Your task to perform on an android device: Go to wifi settings Image 0: 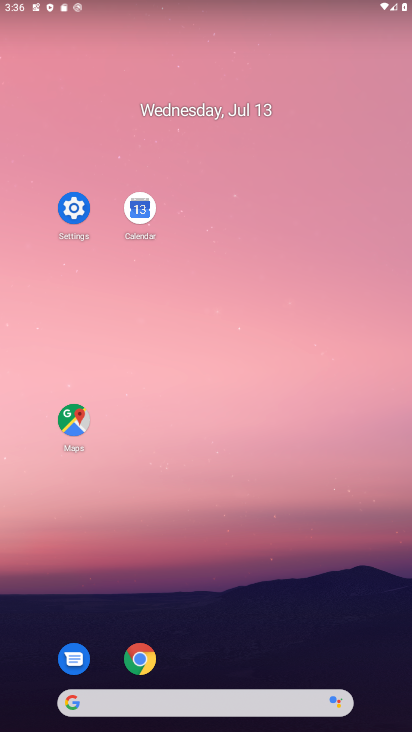
Step 0: click (75, 202)
Your task to perform on an android device: Go to wifi settings Image 1: 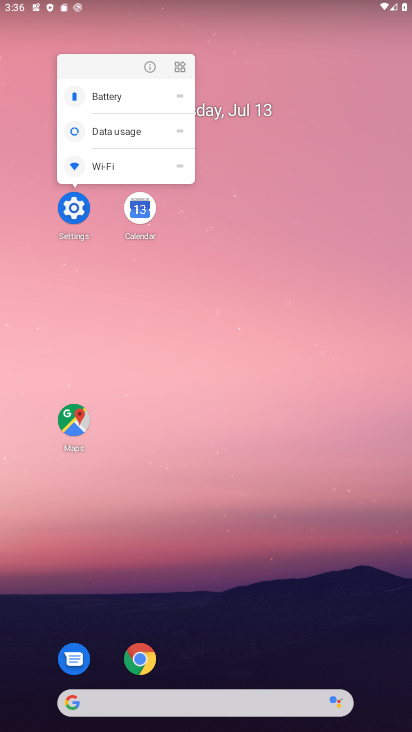
Step 1: click (88, 220)
Your task to perform on an android device: Go to wifi settings Image 2: 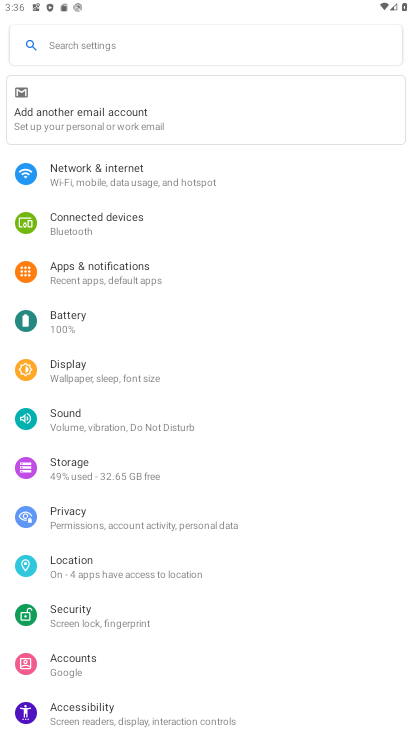
Step 2: click (188, 168)
Your task to perform on an android device: Go to wifi settings Image 3: 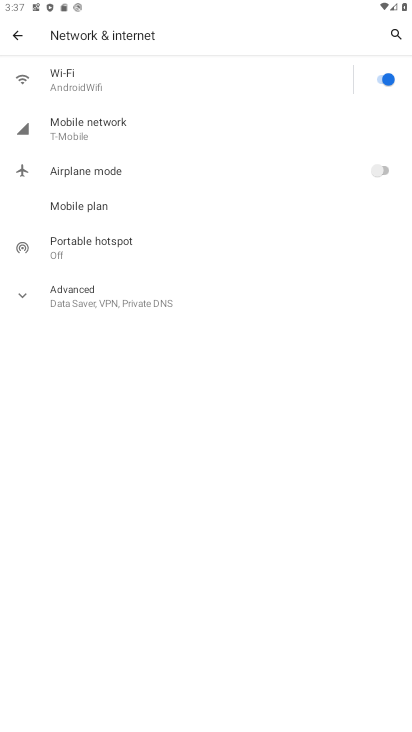
Step 3: click (87, 62)
Your task to perform on an android device: Go to wifi settings Image 4: 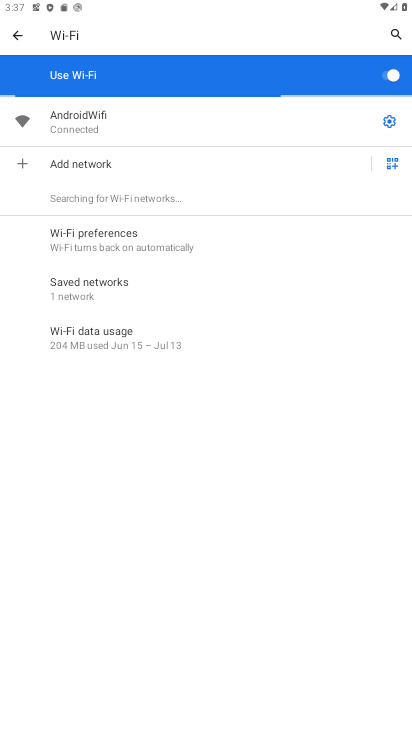
Step 4: task complete